Your task to perform on an android device: Show me recent news Image 0: 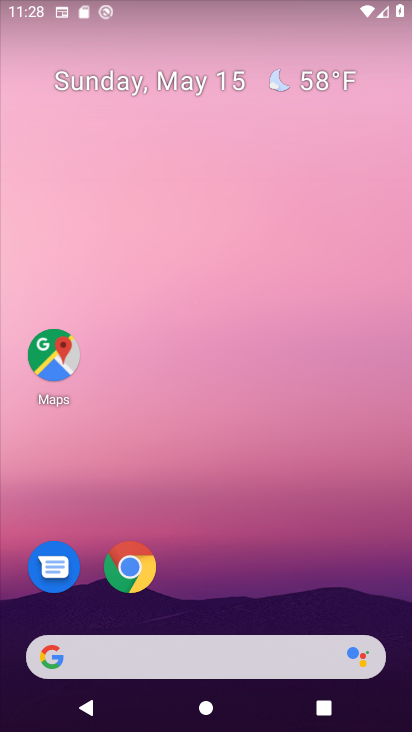
Step 0: click (120, 659)
Your task to perform on an android device: Show me recent news Image 1: 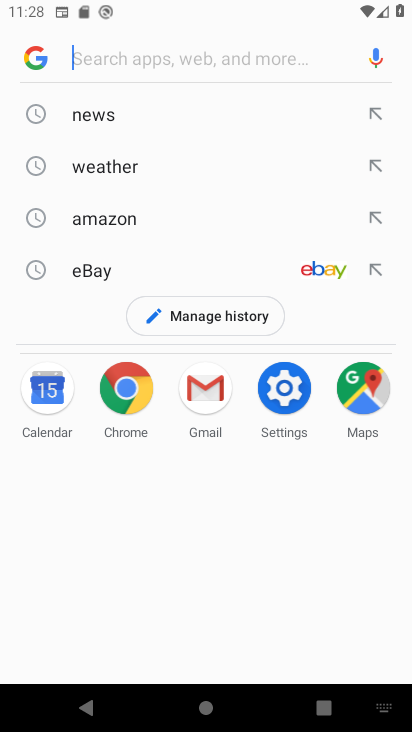
Step 1: click (93, 113)
Your task to perform on an android device: Show me recent news Image 2: 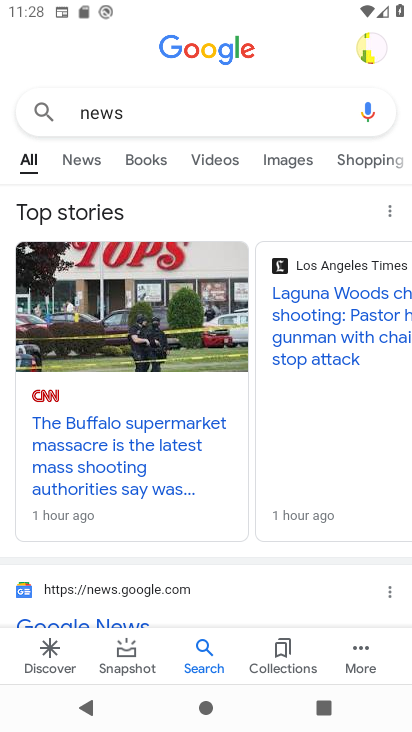
Step 2: task complete